Your task to perform on an android device: Open calendar and show me the second week of next month Image 0: 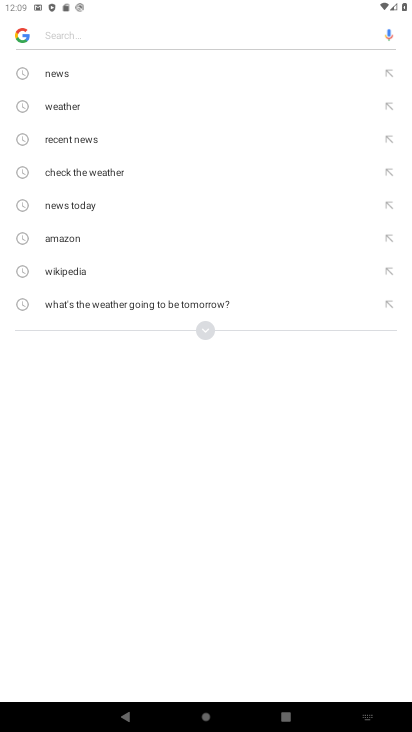
Step 0: press back button
Your task to perform on an android device: Open calendar and show me the second week of next month Image 1: 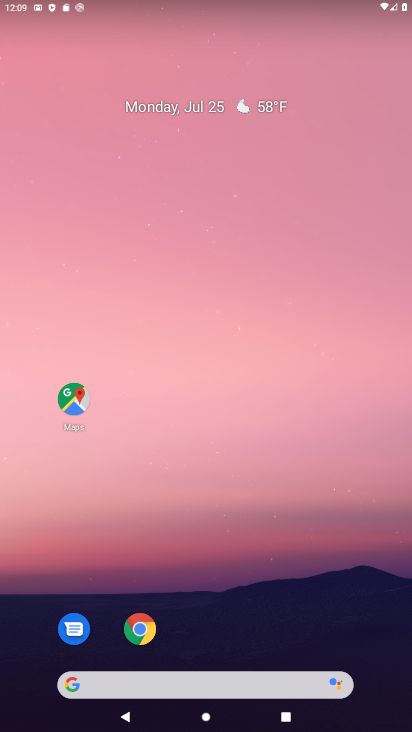
Step 1: drag from (216, 668) to (386, 434)
Your task to perform on an android device: Open calendar and show me the second week of next month Image 2: 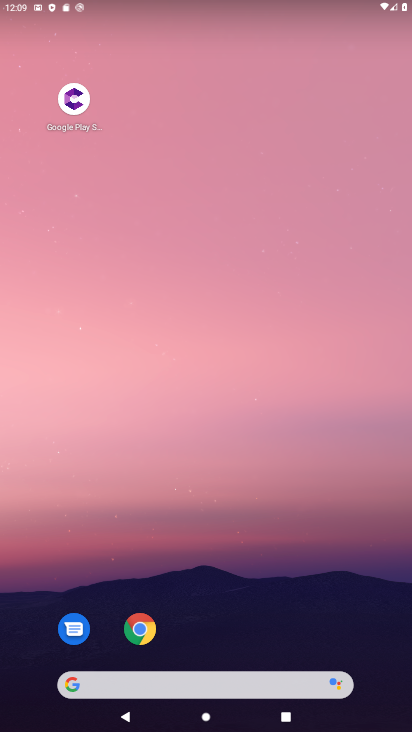
Step 2: drag from (231, 661) to (262, 6)
Your task to perform on an android device: Open calendar and show me the second week of next month Image 3: 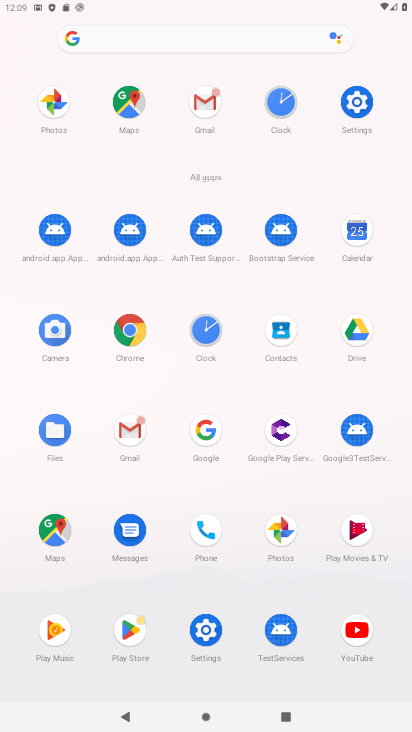
Step 3: click (360, 232)
Your task to perform on an android device: Open calendar and show me the second week of next month Image 4: 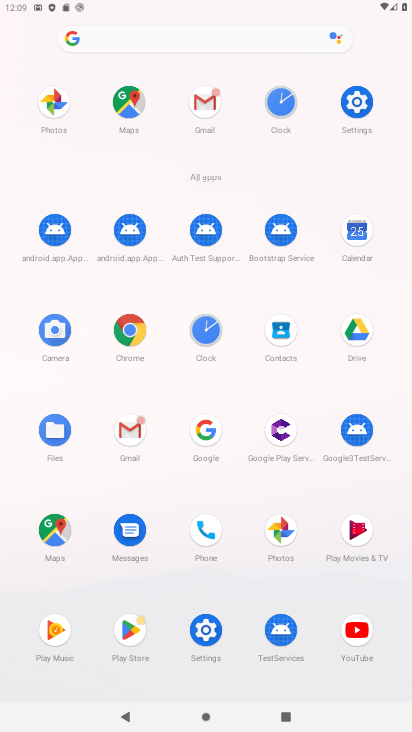
Step 4: click (354, 238)
Your task to perform on an android device: Open calendar and show me the second week of next month Image 5: 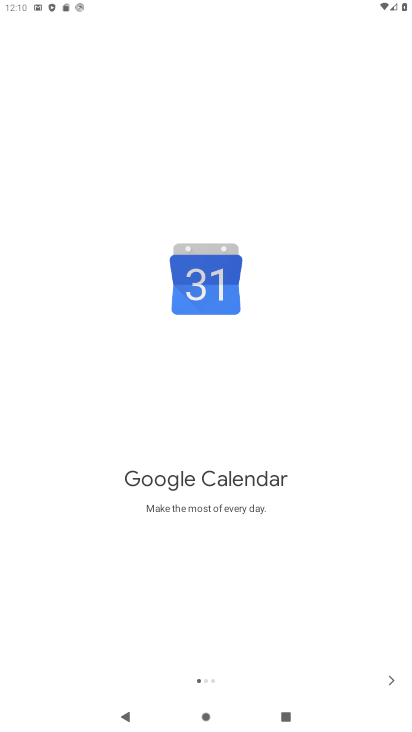
Step 5: click (392, 676)
Your task to perform on an android device: Open calendar and show me the second week of next month Image 6: 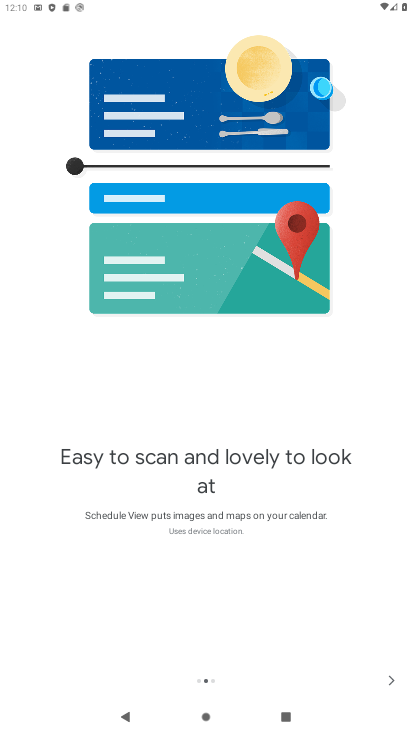
Step 6: click (385, 678)
Your task to perform on an android device: Open calendar and show me the second week of next month Image 7: 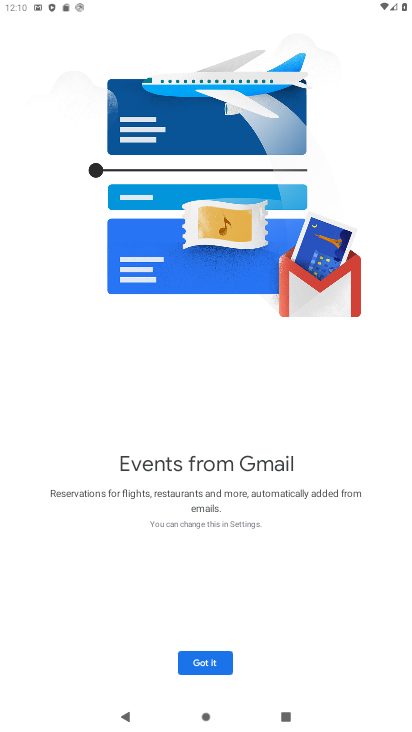
Step 7: click (225, 665)
Your task to perform on an android device: Open calendar and show me the second week of next month Image 8: 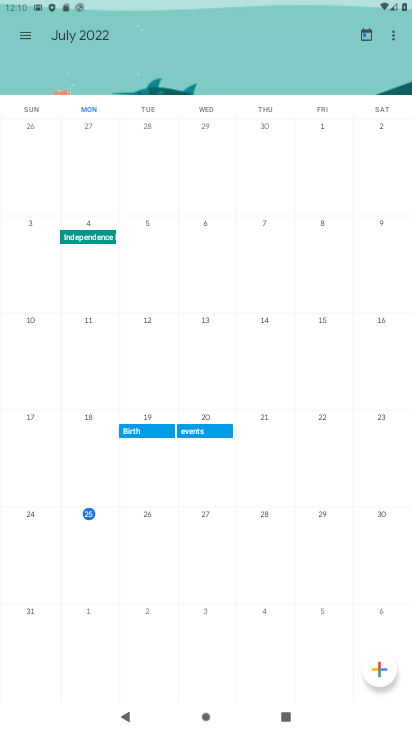
Step 8: task complete